Your task to perform on an android device: Go to settings Image 0: 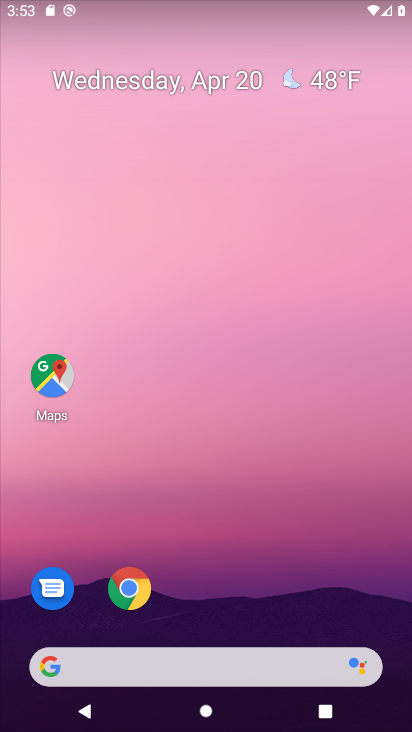
Step 0: drag from (273, 617) to (336, 206)
Your task to perform on an android device: Go to settings Image 1: 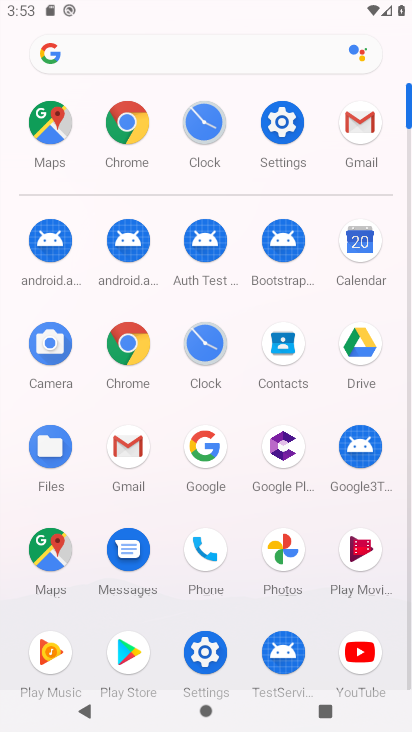
Step 1: click (282, 128)
Your task to perform on an android device: Go to settings Image 2: 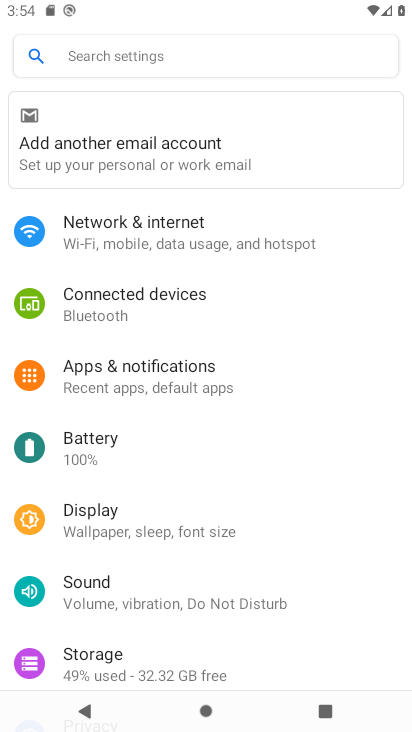
Step 2: task complete